Your task to perform on an android device: turn off location history Image 0: 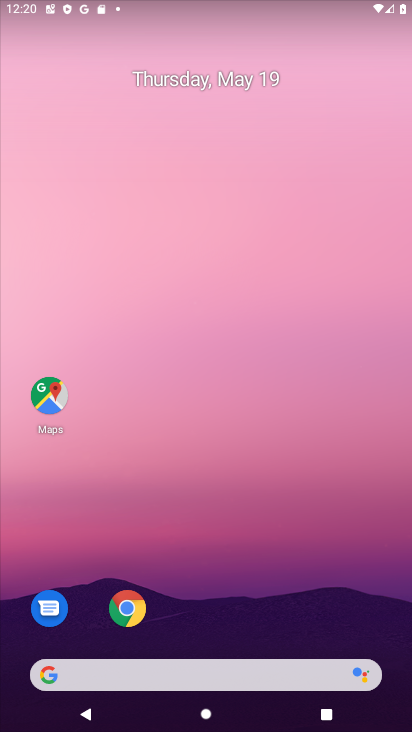
Step 0: drag from (257, 567) to (266, 245)
Your task to perform on an android device: turn off location history Image 1: 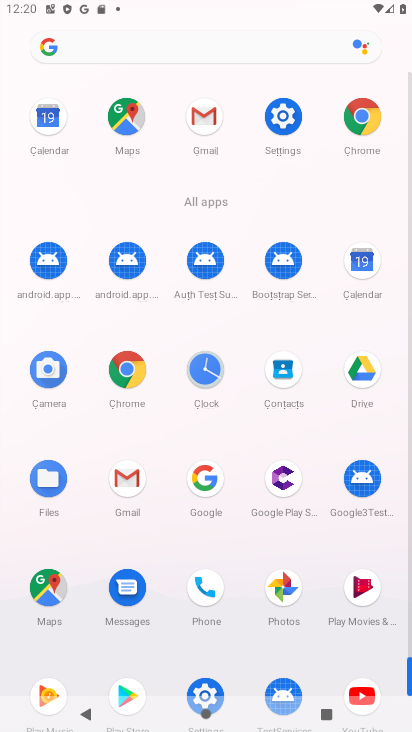
Step 1: click (280, 112)
Your task to perform on an android device: turn off location history Image 2: 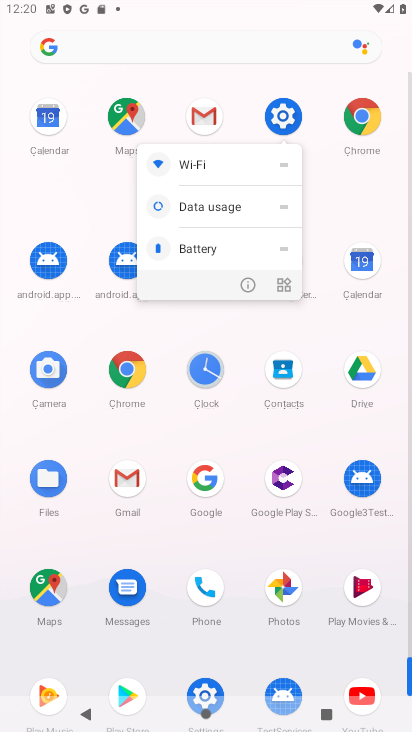
Step 2: click (273, 96)
Your task to perform on an android device: turn off location history Image 3: 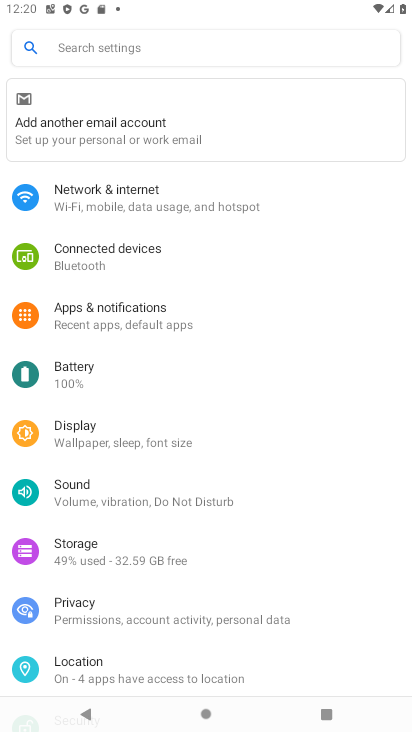
Step 3: click (120, 671)
Your task to perform on an android device: turn off location history Image 4: 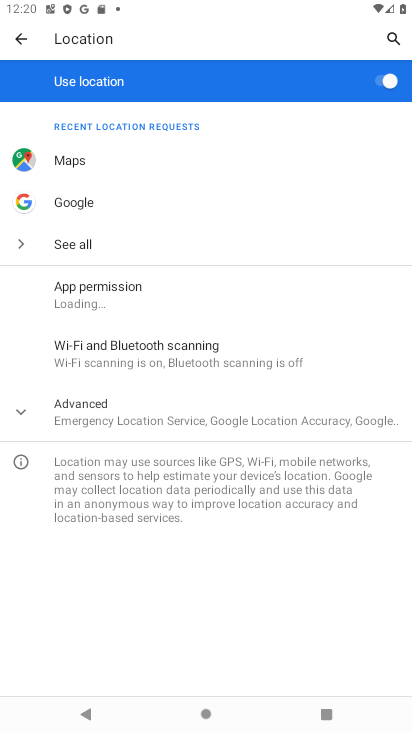
Step 4: click (135, 409)
Your task to perform on an android device: turn off location history Image 5: 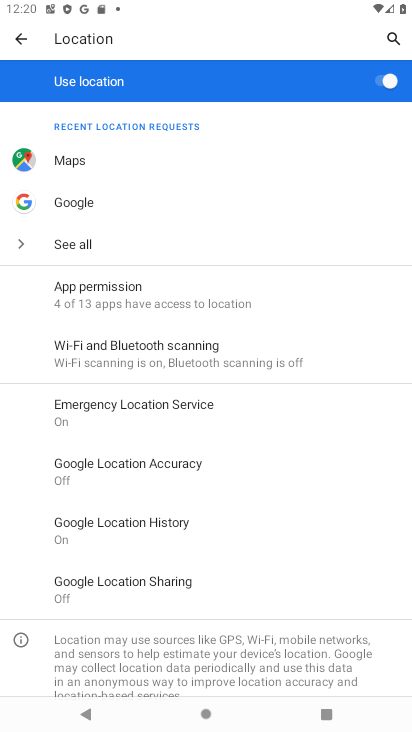
Step 5: click (166, 523)
Your task to perform on an android device: turn off location history Image 6: 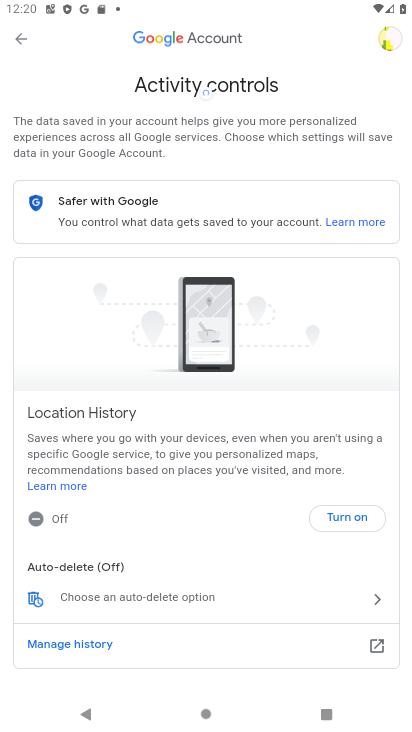
Step 6: click (339, 513)
Your task to perform on an android device: turn off location history Image 7: 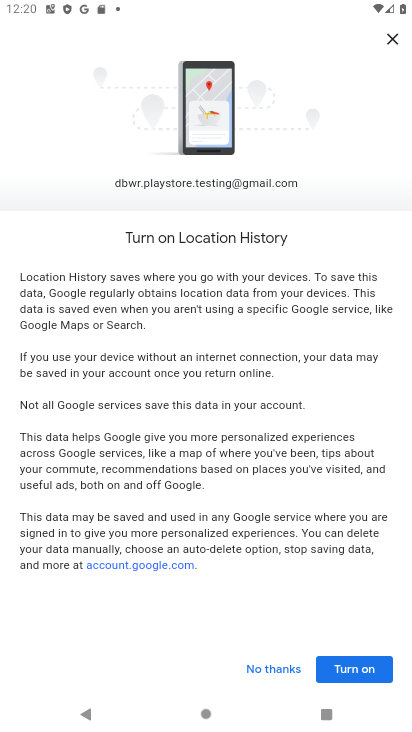
Step 7: click (342, 672)
Your task to perform on an android device: turn off location history Image 8: 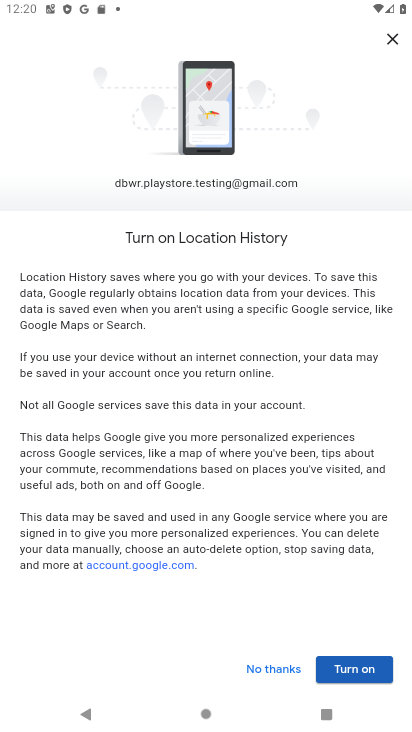
Step 8: click (346, 670)
Your task to perform on an android device: turn off location history Image 9: 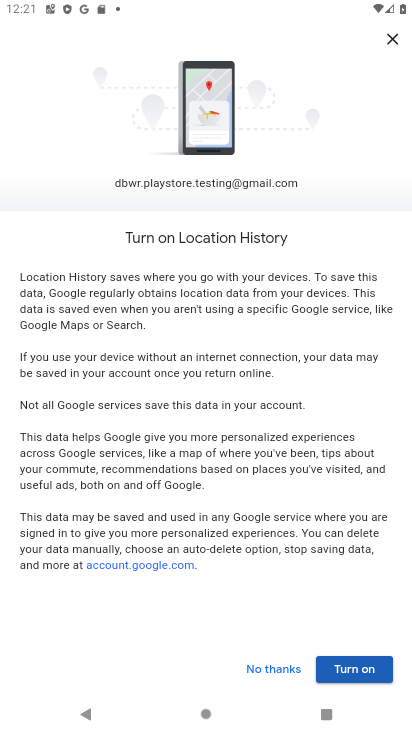
Step 9: task complete